Your task to perform on an android device: turn vacation reply on in the gmail app Image 0: 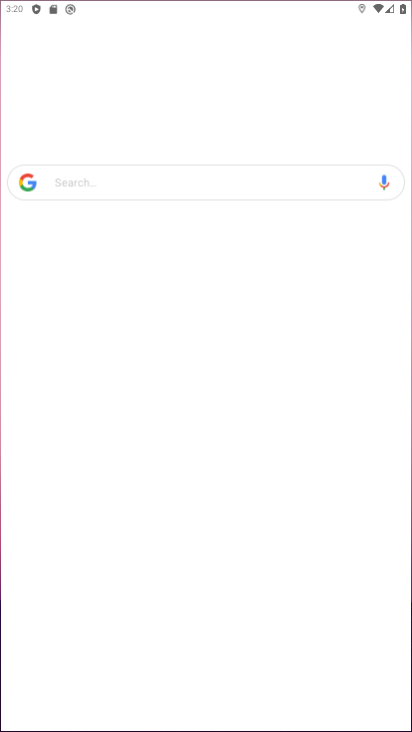
Step 0: drag from (195, 656) to (260, 119)
Your task to perform on an android device: turn vacation reply on in the gmail app Image 1: 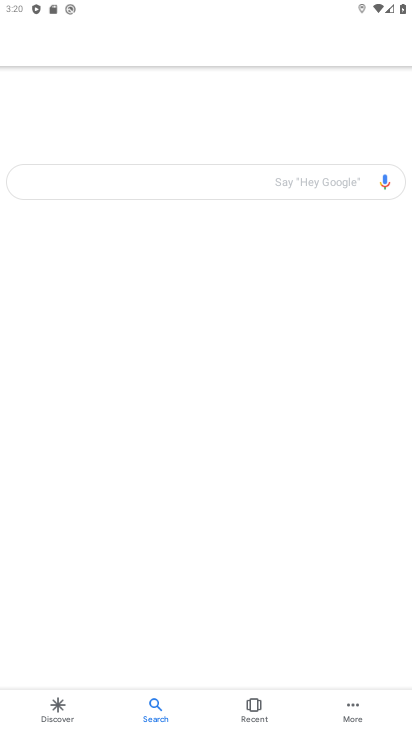
Step 1: press home button
Your task to perform on an android device: turn vacation reply on in the gmail app Image 2: 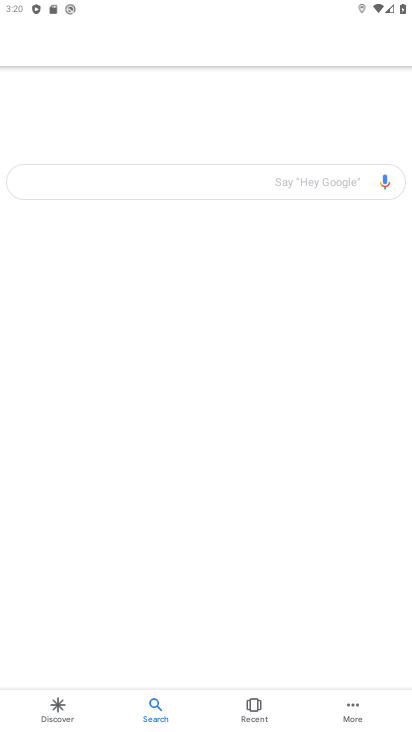
Step 2: press home button
Your task to perform on an android device: turn vacation reply on in the gmail app Image 3: 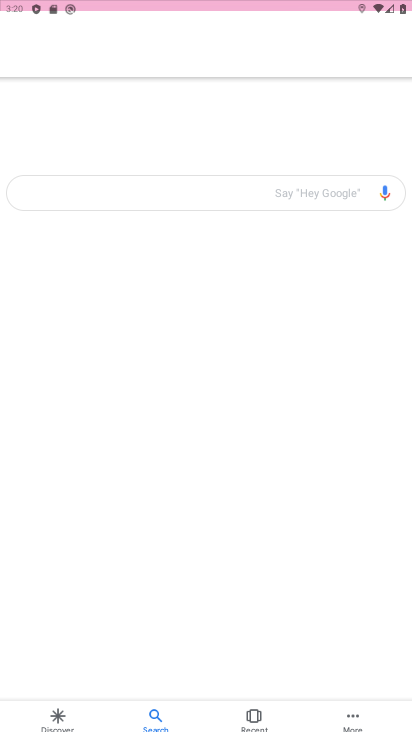
Step 3: click (256, 109)
Your task to perform on an android device: turn vacation reply on in the gmail app Image 4: 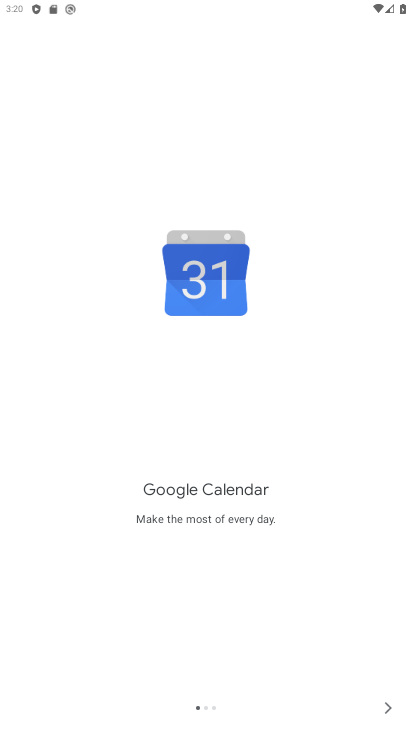
Step 4: click (390, 712)
Your task to perform on an android device: turn vacation reply on in the gmail app Image 5: 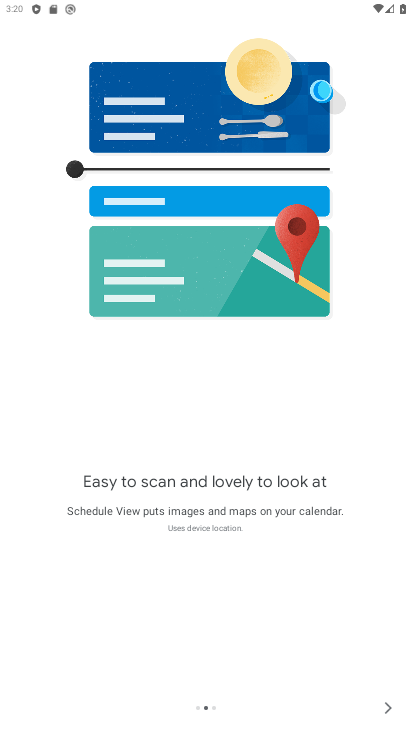
Step 5: click (388, 706)
Your task to perform on an android device: turn vacation reply on in the gmail app Image 6: 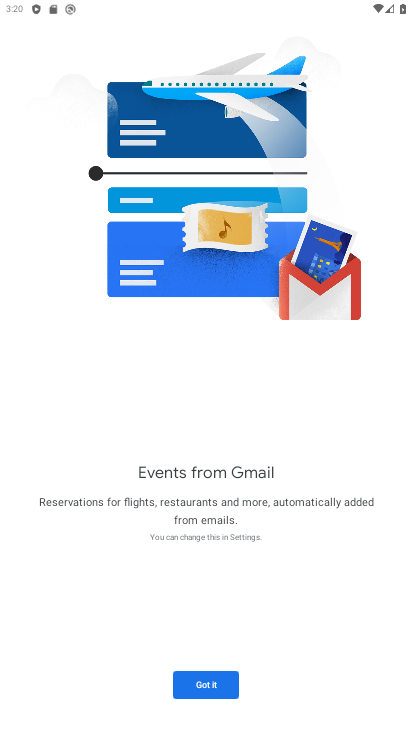
Step 6: press home button
Your task to perform on an android device: turn vacation reply on in the gmail app Image 7: 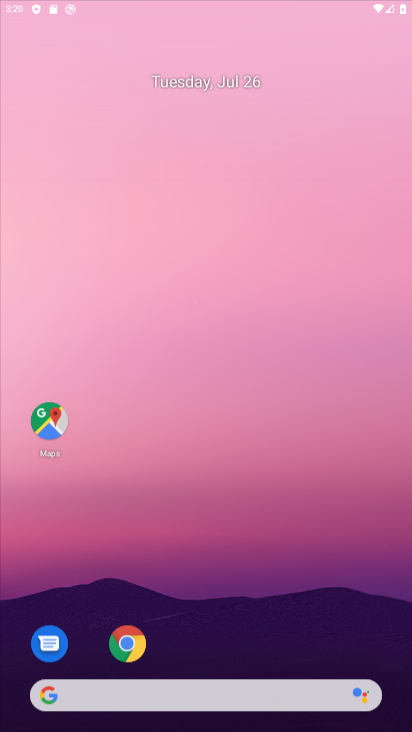
Step 7: drag from (256, 480) to (288, 147)
Your task to perform on an android device: turn vacation reply on in the gmail app Image 8: 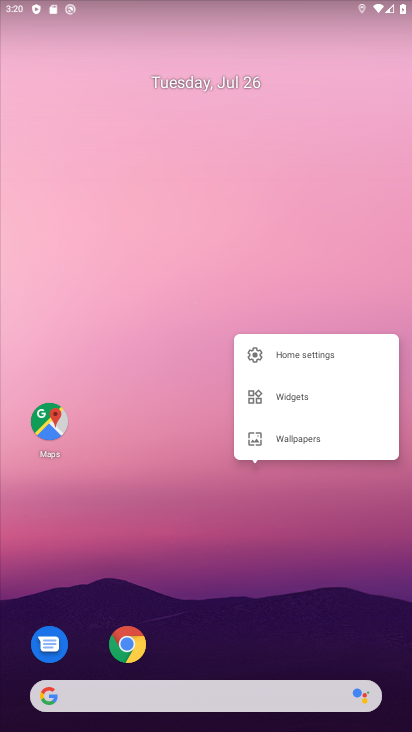
Step 8: click (211, 646)
Your task to perform on an android device: turn vacation reply on in the gmail app Image 9: 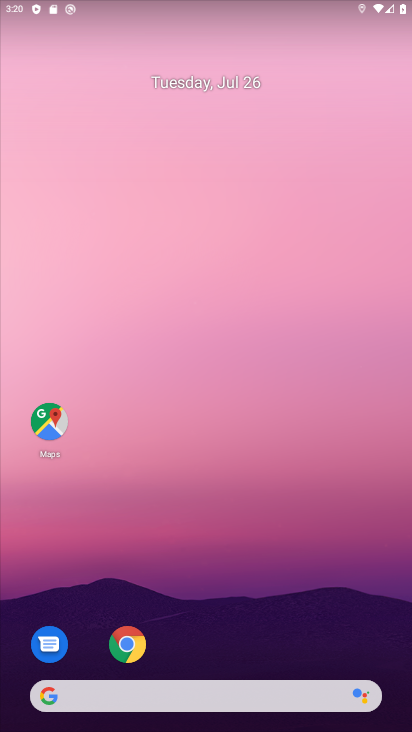
Step 9: drag from (206, 641) to (288, 16)
Your task to perform on an android device: turn vacation reply on in the gmail app Image 10: 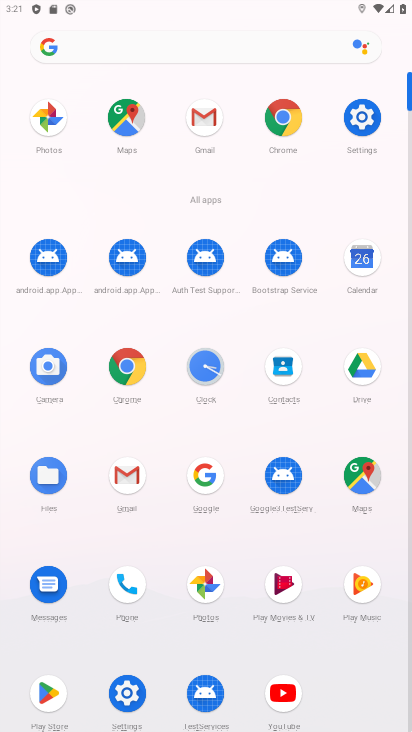
Step 10: click (197, 115)
Your task to perform on an android device: turn vacation reply on in the gmail app Image 11: 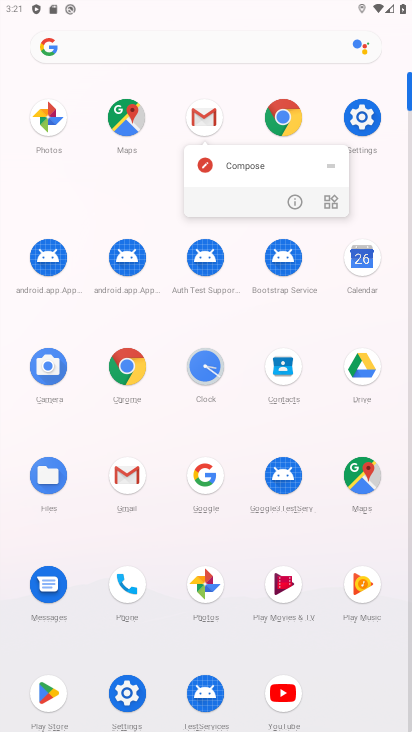
Step 11: click (298, 199)
Your task to perform on an android device: turn vacation reply on in the gmail app Image 12: 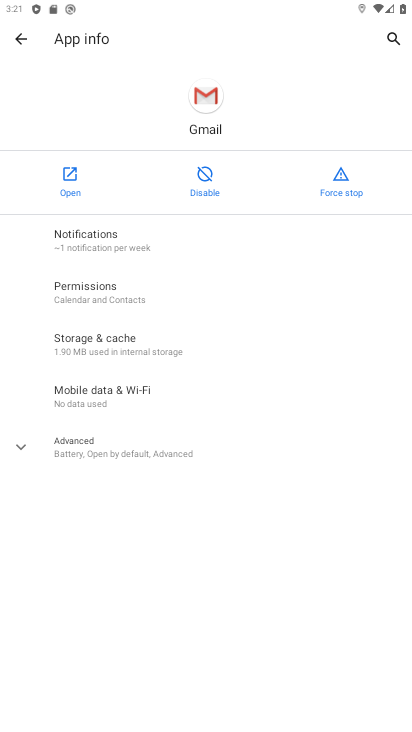
Step 12: click (84, 177)
Your task to perform on an android device: turn vacation reply on in the gmail app Image 13: 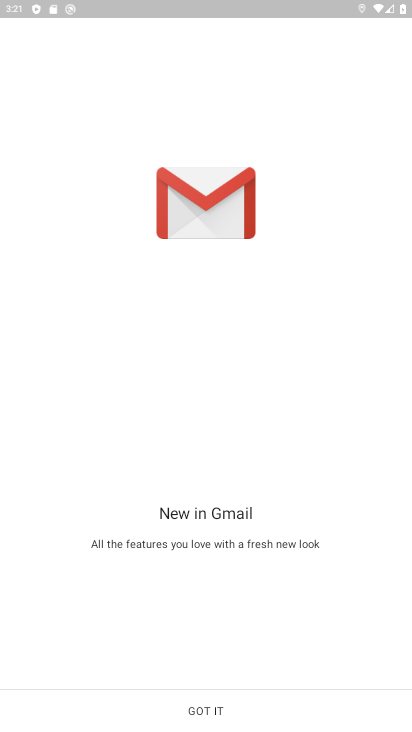
Step 13: click (206, 710)
Your task to perform on an android device: turn vacation reply on in the gmail app Image 14: 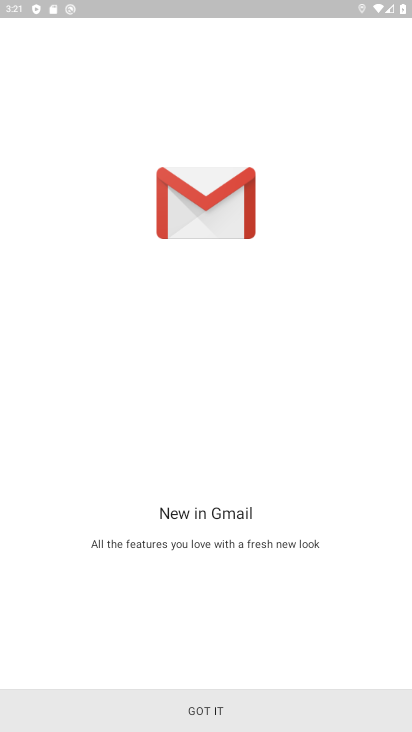
Step 14: click (206, 707)
Your task to perform on an android device: turn vacation reply on in the gmail app Image 15: 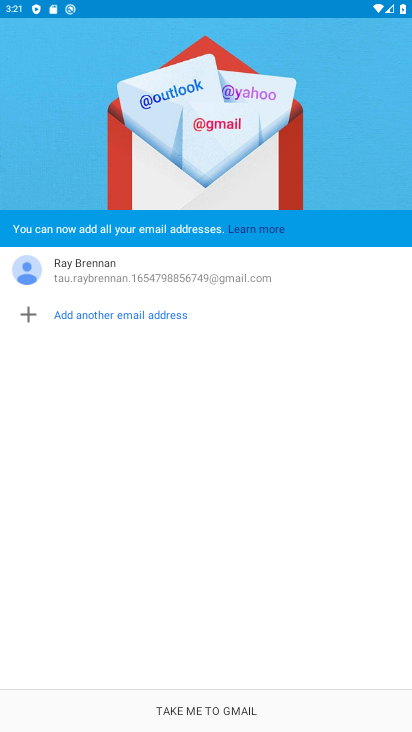
Step 15: click (221, 708)
Your task to perform on an android device: turn vacation reply on in the gmail app Image 16: 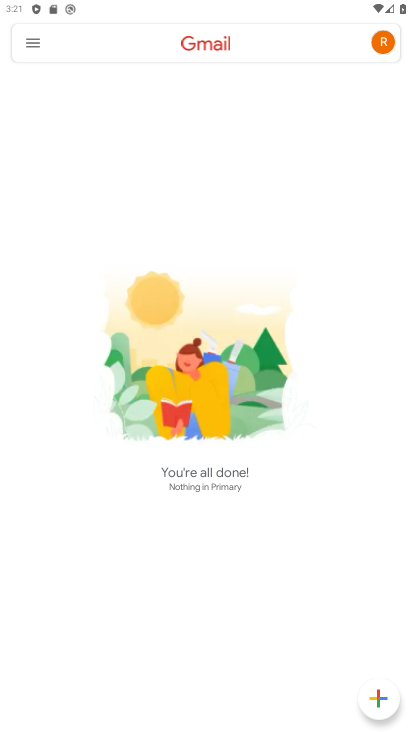
Step 16: drag from (31, 42) to (80, 347)
Your task to perform on an android device: turn vacation reply on in the gmail app Image 17: 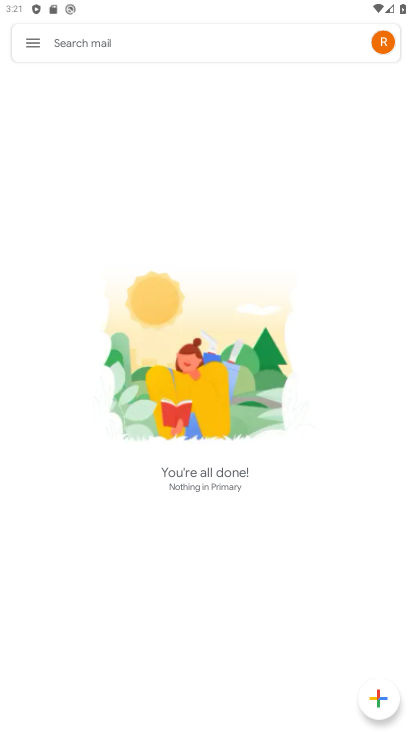
Step 17: click (28, 47)
Your task to perform on an android device: turn vacation reply on in the gmail app Image 18: 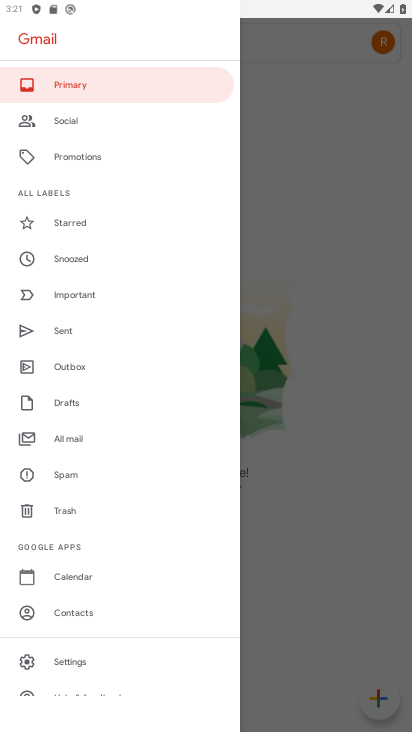
Step 18: click (36, 668)
Your task to perform on an android device: turn vacation reply on in the gmail app Image 19: 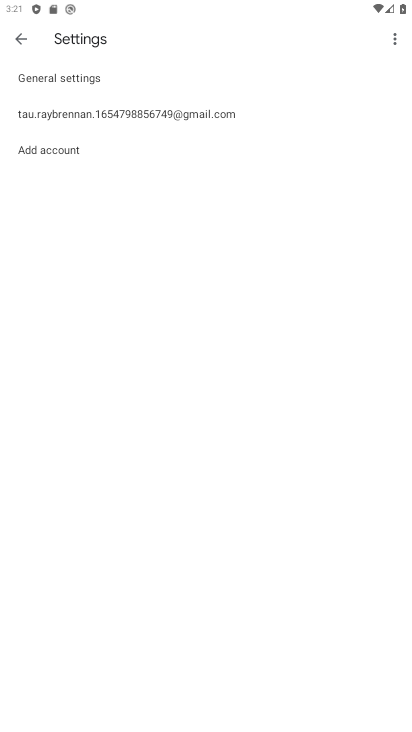
Step 19: click (147, 123)
Your task to perform on an android device: turn vacation reply on in the gmail app Image 20: 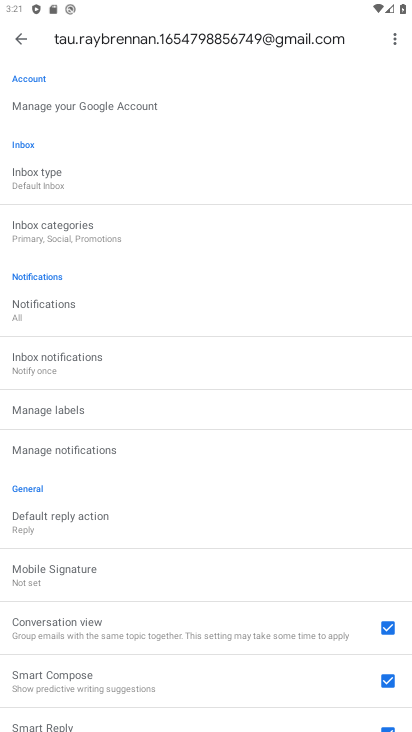
Step 20: drag from (157, 645) to (237, 261)
Your task to perform on an android device: turn vacation reply on in the gmail app Image 21: 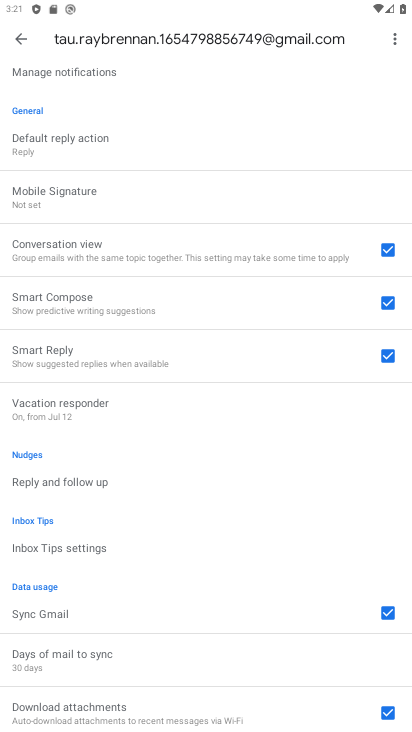
Step 21: click (66, 401)
Your task to perform on an android device: turn vacation reply on in the gmail app Image 22: 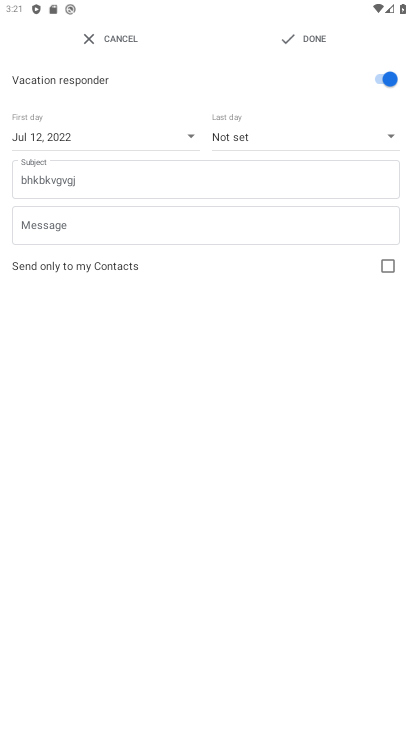
Step 22: click (315, 40)
Your task to perform on an android device: turn vacation reply on in the gmail app Image 23: 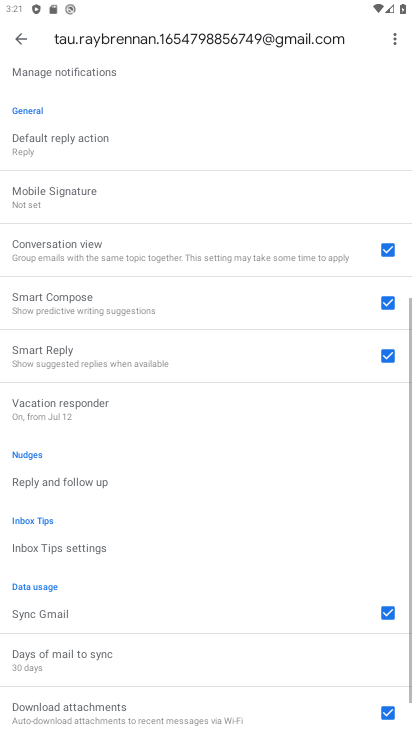
Step 23: task complete